Your task to perform on an android device: turn on translation in the chrome app Image 0: 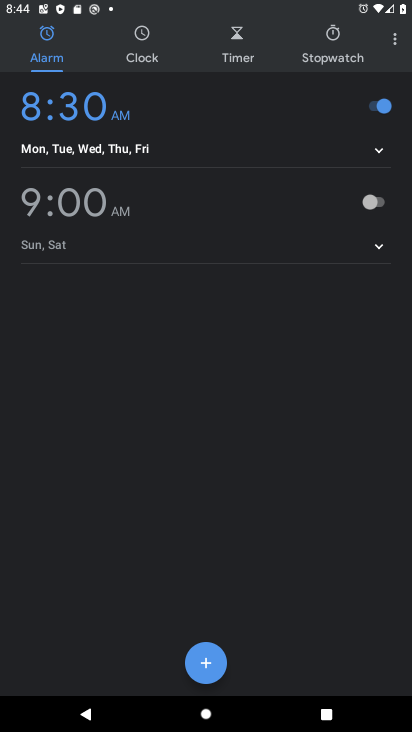
Step 0: press home button
Your task to perform on an android device: turn on translation in the chrome app Image 1: 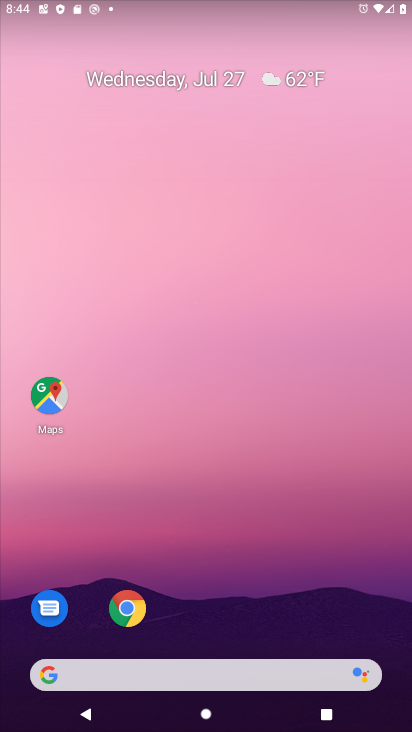
Step 1: click (123, 603)
Your task to perform on an android device: turn on translation in the chrome app Image 2: 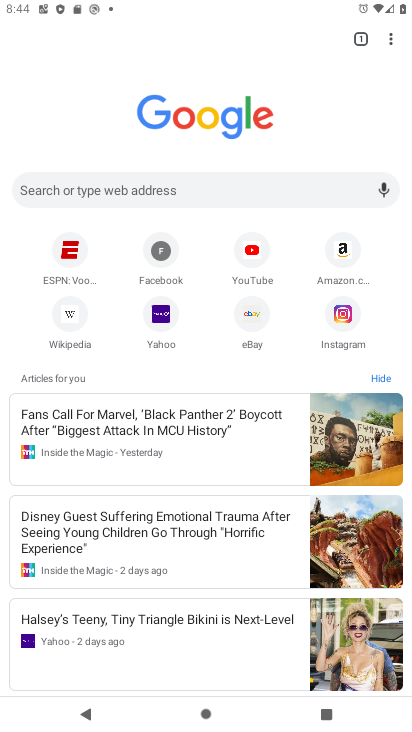
Step 2: click (397, 34)
Your task to perform on an android device: turn on translation in the chrome app Image 3: 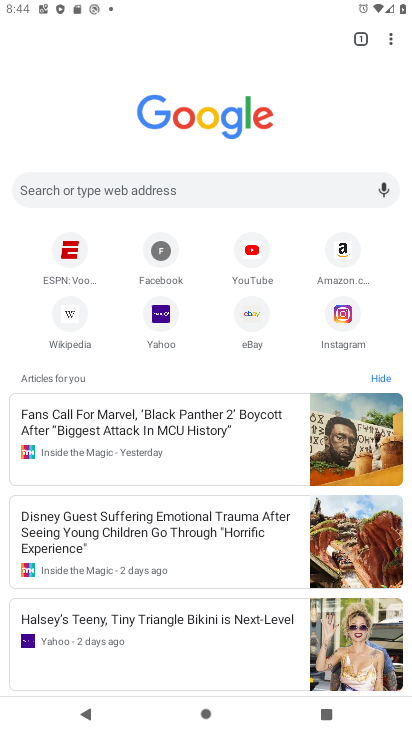
Step 3: click (393, 38)
Your task to perform on an android device: turn on translation in the chrome app Image 4: 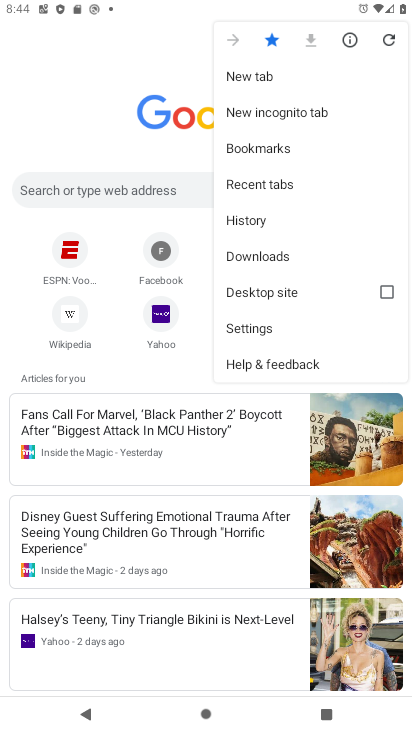
Step 4: click (260, 331)
Your task to perform on an android device: turn on translation in the chrome app Image 5: 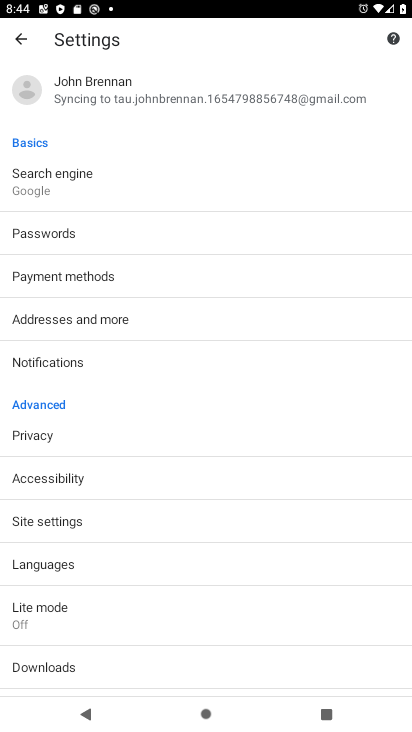
Step 5: task complete